Your task to perform on an android device: allow notifications from all sites in the chrome app Image 0: 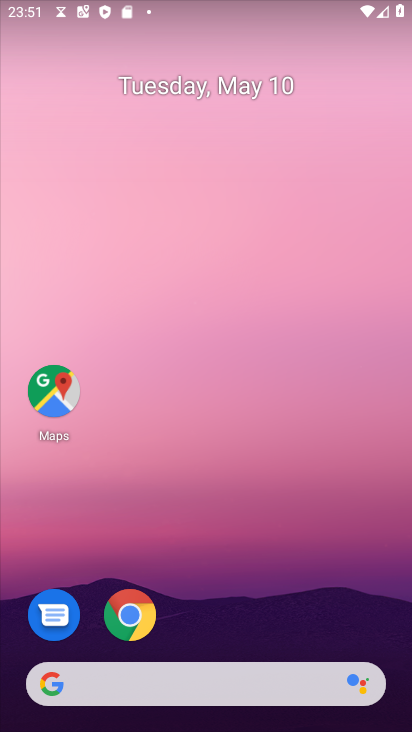
Step 0: click (134, 615)
Your task to perform on an android device: allow notifications from all sites in the chrome app Image 1: 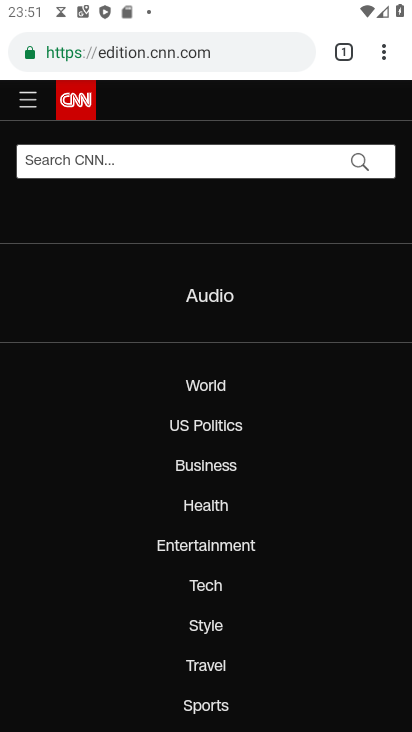
Step 1: click (383, 52)
Your task to perform on an android device: allow notifications from all sites in the chrome app Image 2: 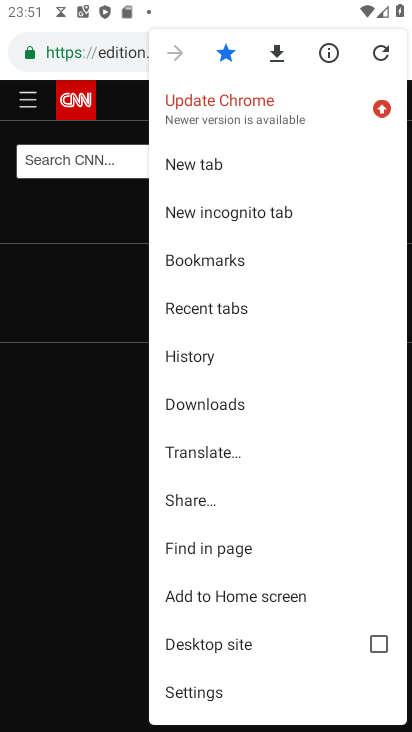
Step 2: click (212, 695)
Your task to perform on an android device: allow notifications from all sites in the chrome app Image 3: 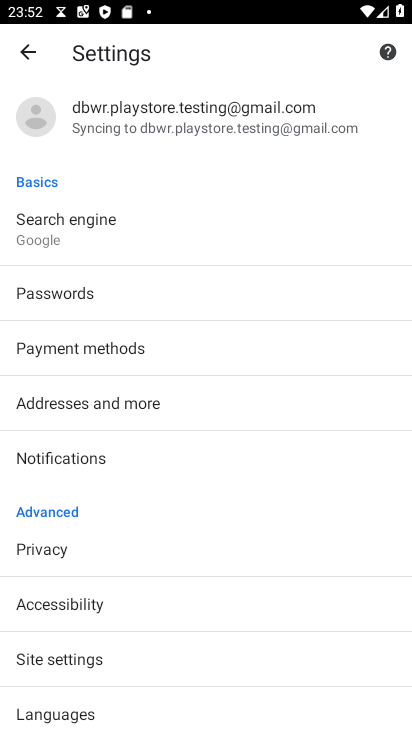
Step 3: click (76, 655)
Your task to perform on an android device: allow notifications from all sites in the chrome app Image 4: 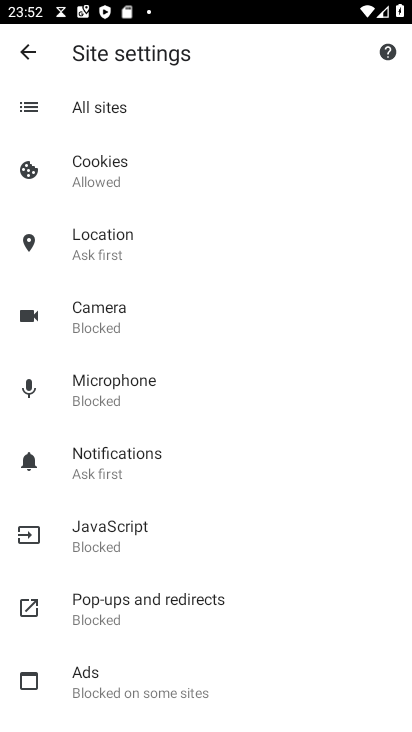
Step 4: click (121, 462)
Your task to perform on an android device: allow notifications from all sites in the chrome app Image 5: 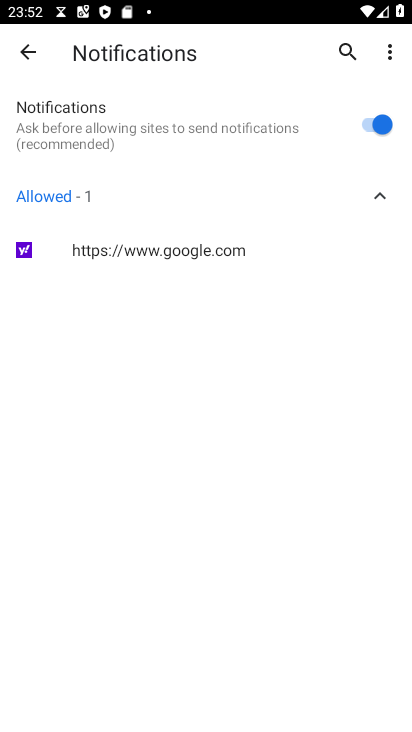
Step 5: click (236, 252)
Your task to perform on an android device: allow notifications from all sites in the chrome app Image 6: 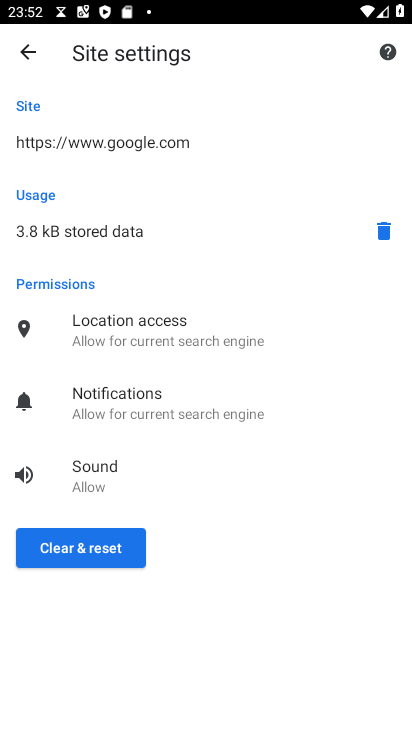
Step 6: task complete